Your task to perform on an android device: Open the phone app and click the voicemail tab. Image 0: 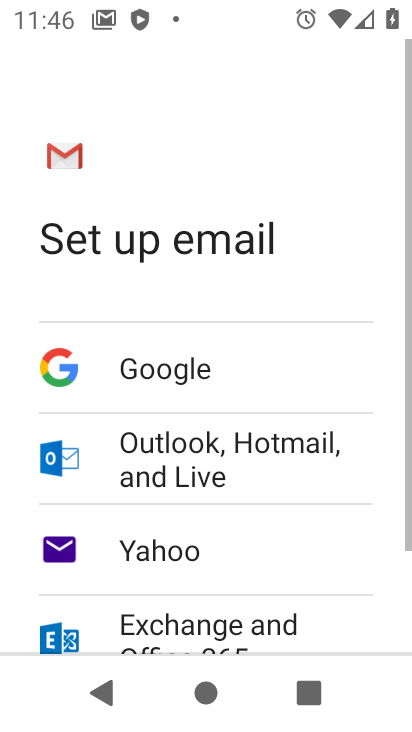
Step 0: press home button
Your task to perform on an android device: Open the phone app and click the voicemail tab. Image 1: 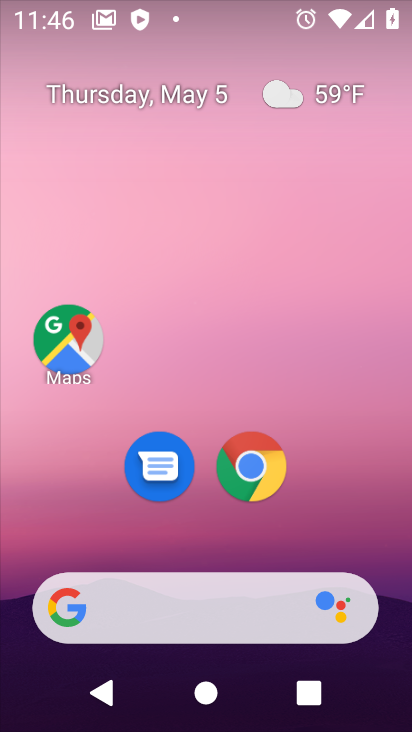
Step 1: drag from (180, 546) to (203, 161)
Your task to perform on an android device: Open the phone app and click the voicemail tab. Image 2: 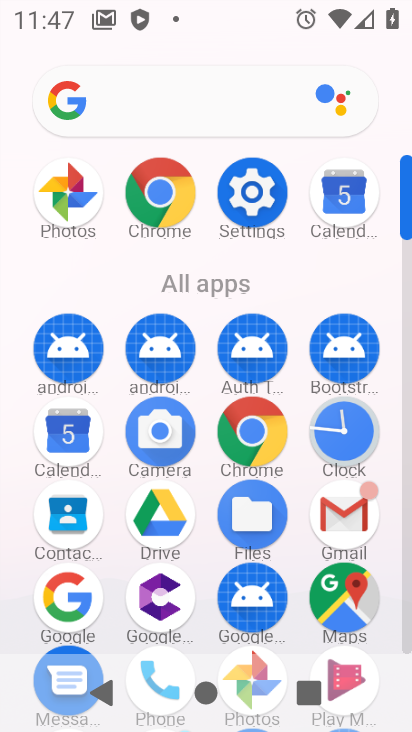
Step 2: drag from (193, 624) to (214, 373)
Your task to perform on an android device: Open the phone app and click the voicemail tab. Image 3: 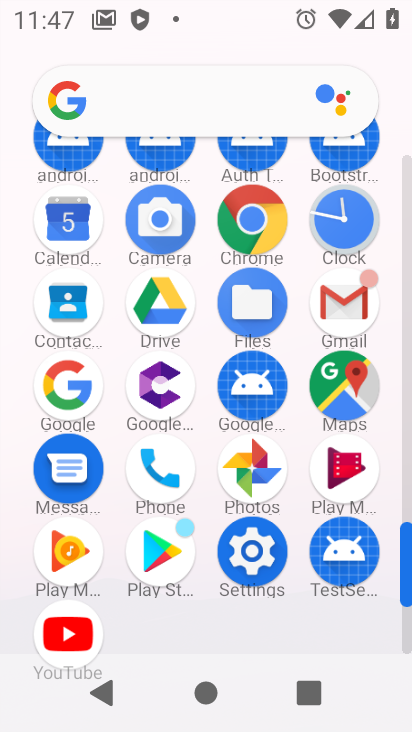
Step 3: click (159, 464)
Your task to perform on an android device: Open the phone app and click the voicemail tab. Image 4: 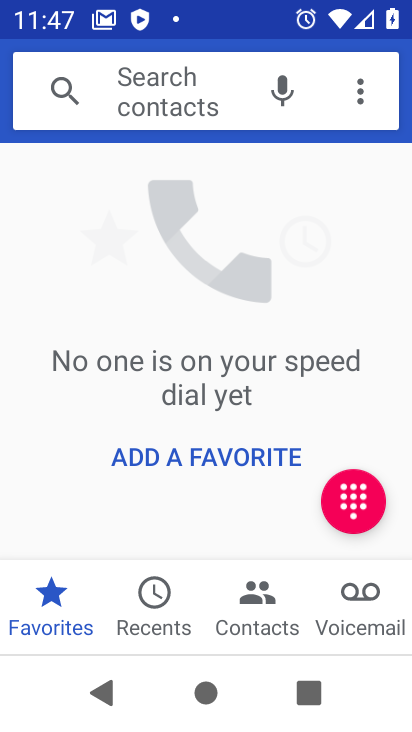
Step 4: click (363, 598)
Your task to perform on an android device: Open the phone app and click the voicemail tab. Image 5: 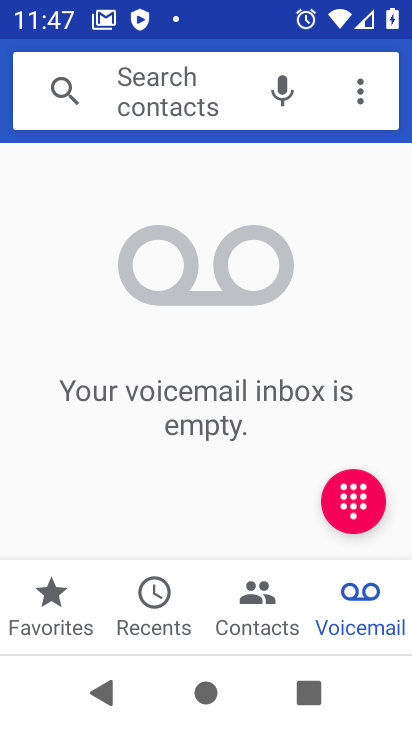
Step 5: task complete